Your task to perform on an android device: What's on my calendar today? Image 0: 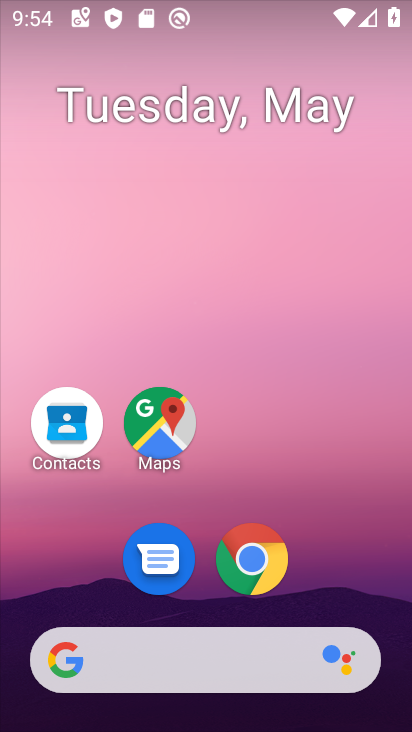
Step 0: drag from (339, 593) to (353, 92)
Your task to perform on an android device: What's on my calendar today? Image 1: 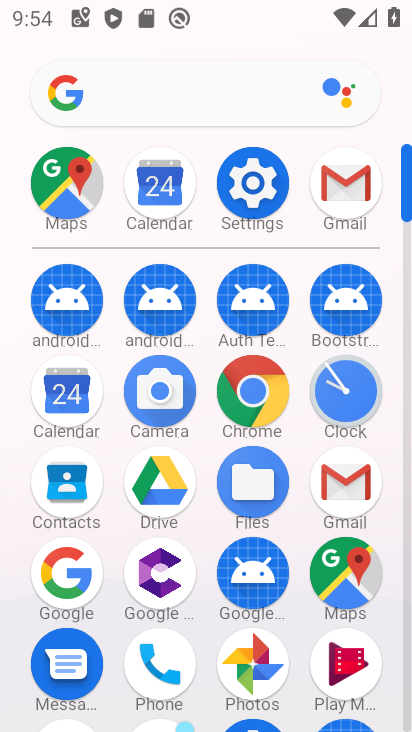
Step 1: click (171, 199)
Your task to perform on an android device: What's on my calendar today? Image 2: 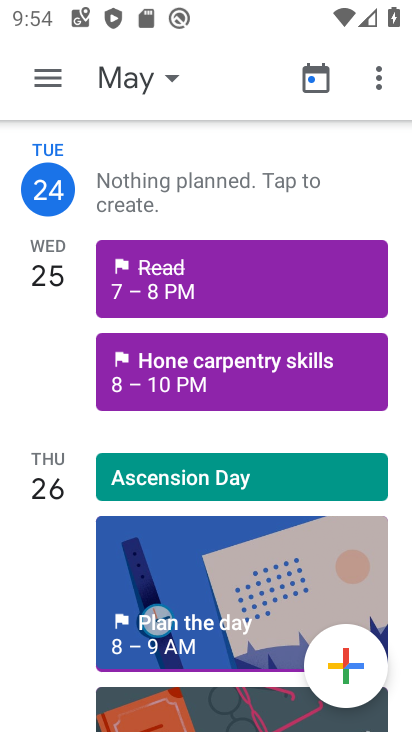
Step 2: task complete